Your task to perform on an android device: open app "YouTube Kids" (install if not already installed) Image 0: 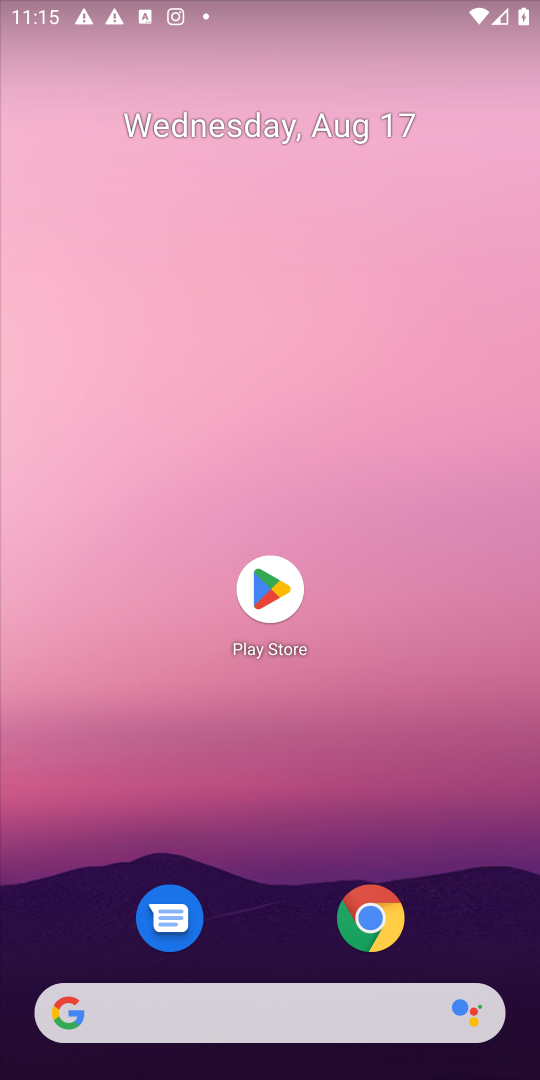
Step 0: click (275, 590)
Your task to perform on an android device: open app "YouTube Kids" (install if not already installed) Image 1: 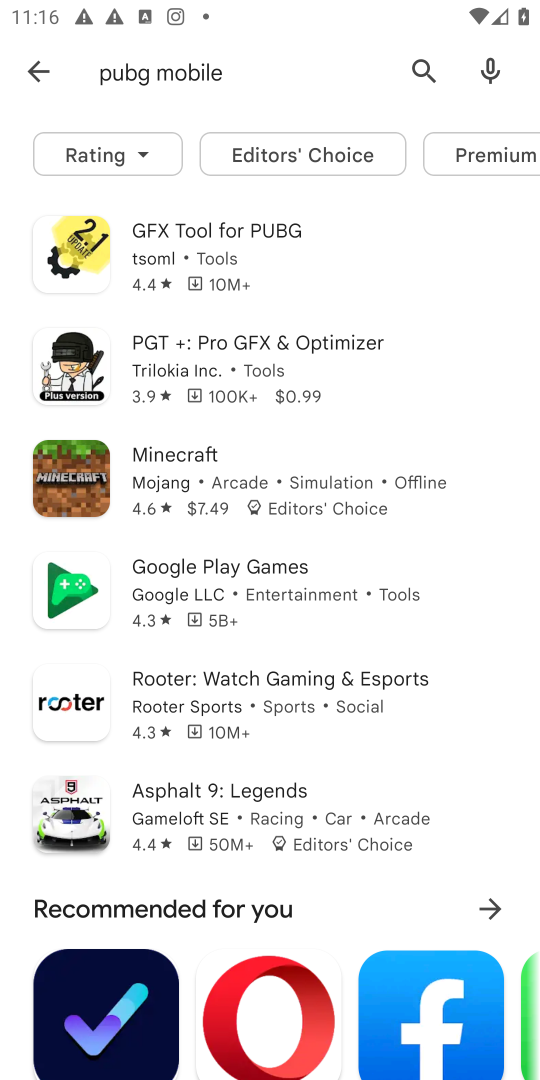
Step 1: click (431, 74)
Your task to perform on an android device: open app "YouTube Kids" (install if not already installed) Image 2: 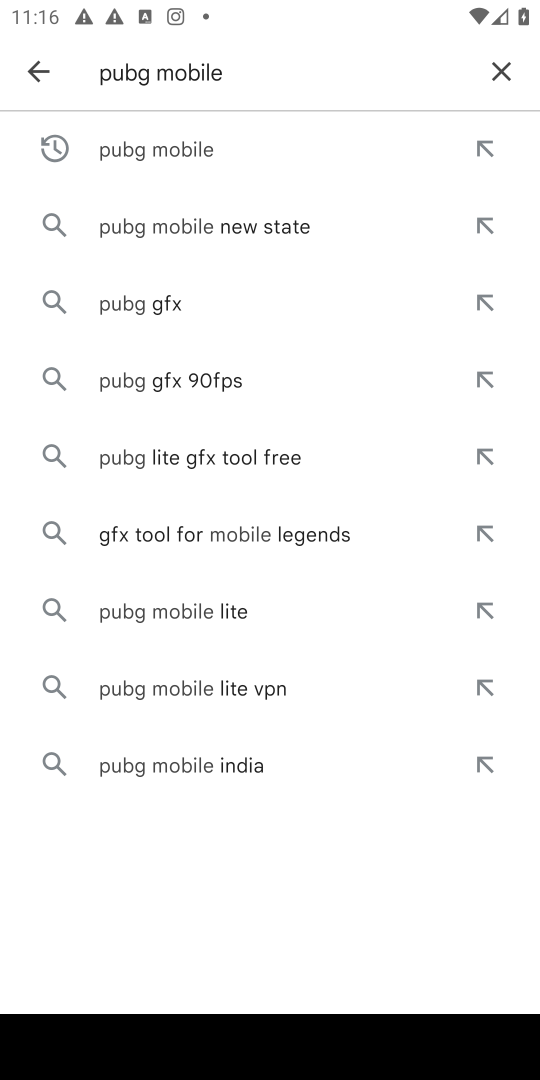
Step 2: click (503, 72)
Your task to perform on an android device: open app "YouTube Kids" (install if not already installed) Image 3: 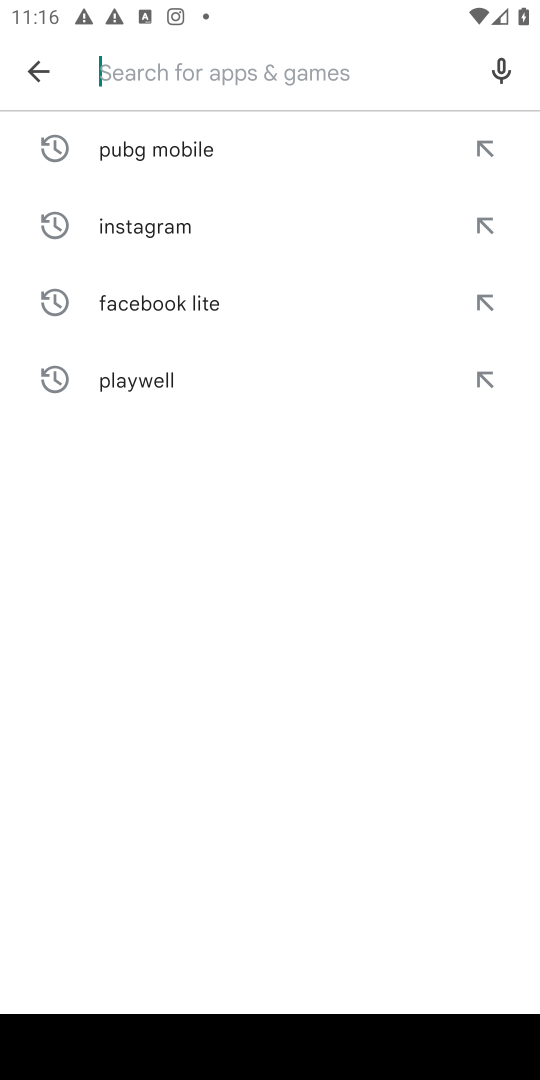
Step 3: type "YouTube Kids"
Your task to perform on an android device: open app "YouTube Kids" (install if not already installed) Image 4: 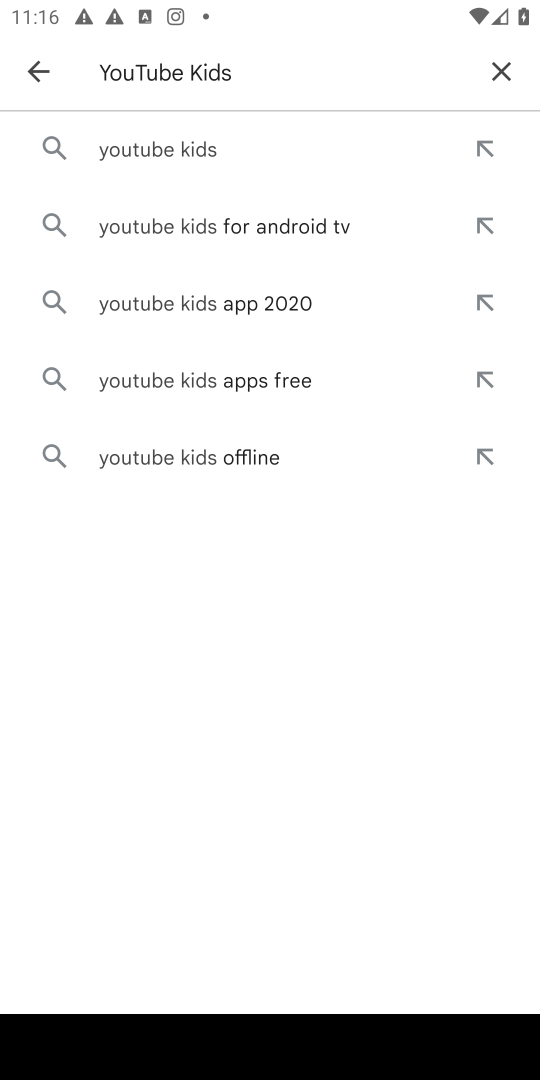
Step 4: click (177, 153)
Your task to perform on an android device: open app "YouTube Kids" (install if not already installed) Image 5: 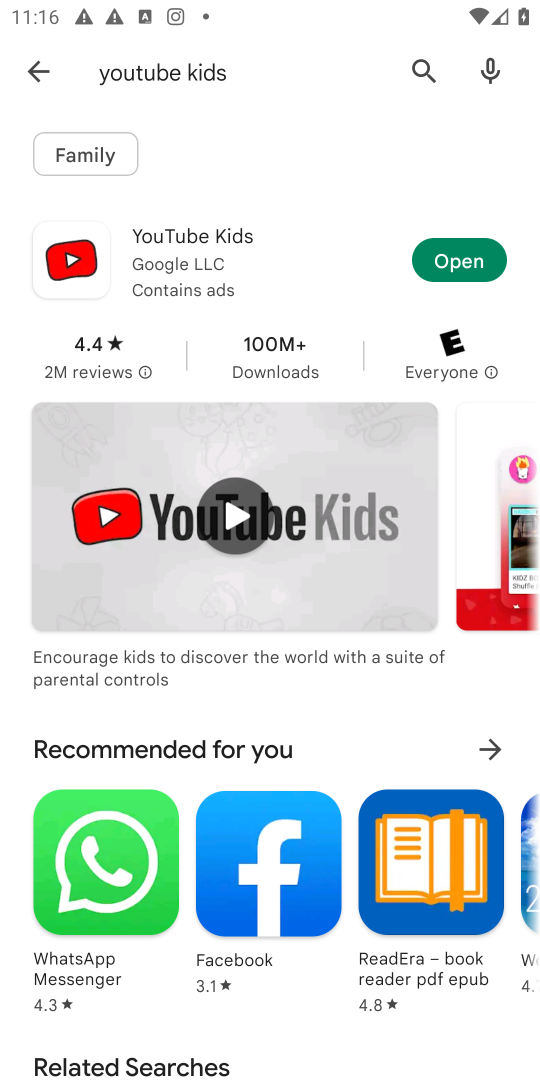
Step 5: click (452, 256)
Your task to perform on an android device: open app "YouTube Kids" (install if not already installed) Image 6: 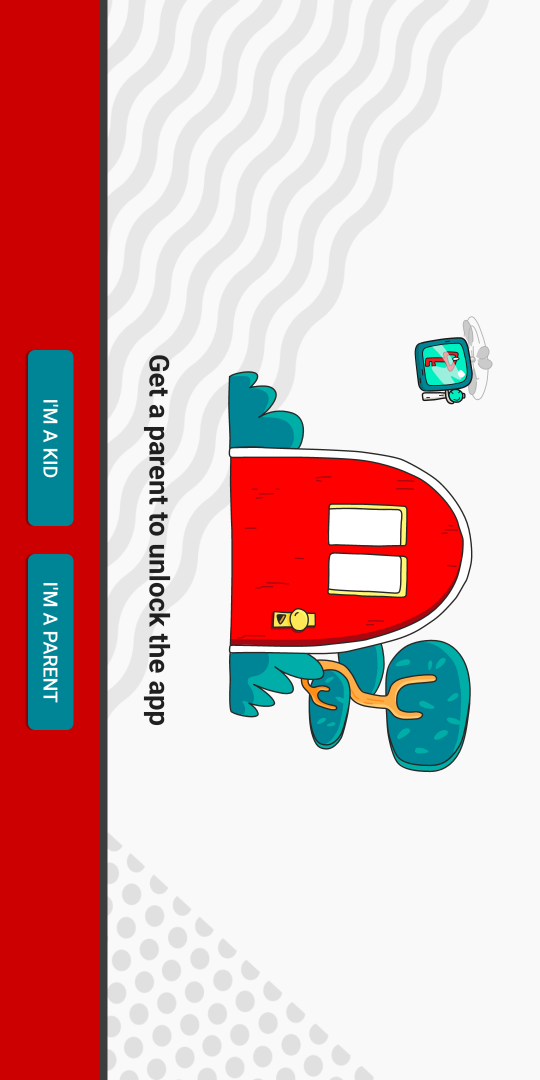
Step 6: task complete